Your task to perform on an android device: Do I have any events today? Image 0: 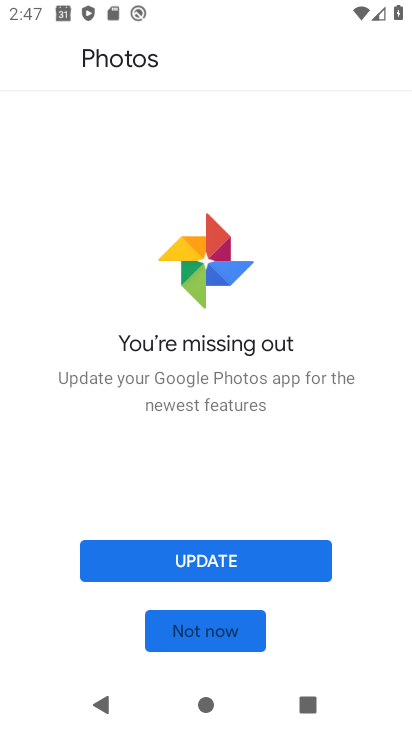
Step 0: press home button
Your task to perform on an android device: Do I have any events today? Image 1: 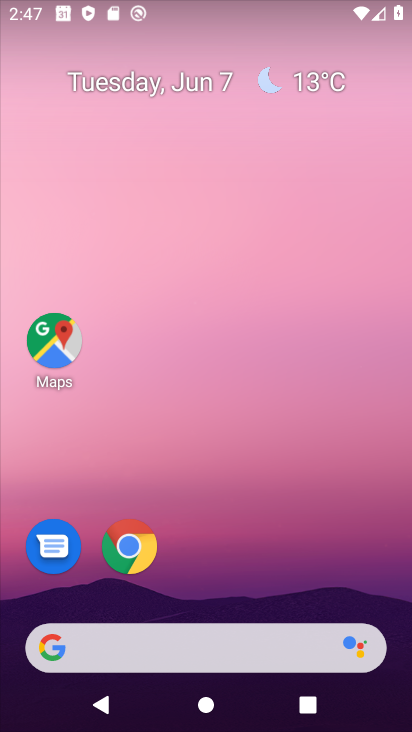
Step 1: click (206, 89)
Your task to perform on an android device: Do I have any events today? Image 2: 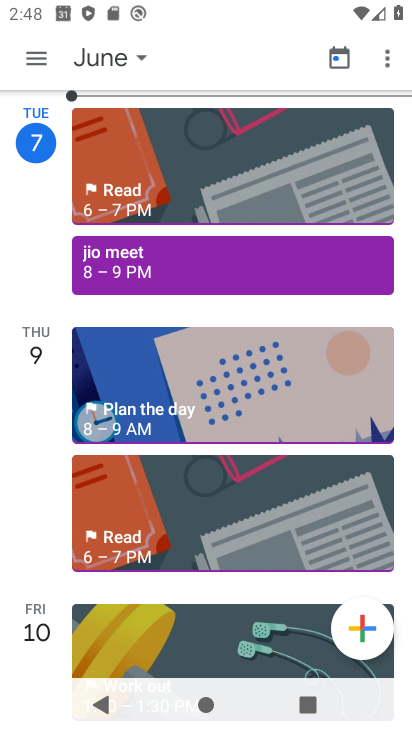
Step 2: click (122, 52)
Your task to perform on an android device: Do I have any events today? Image 3: 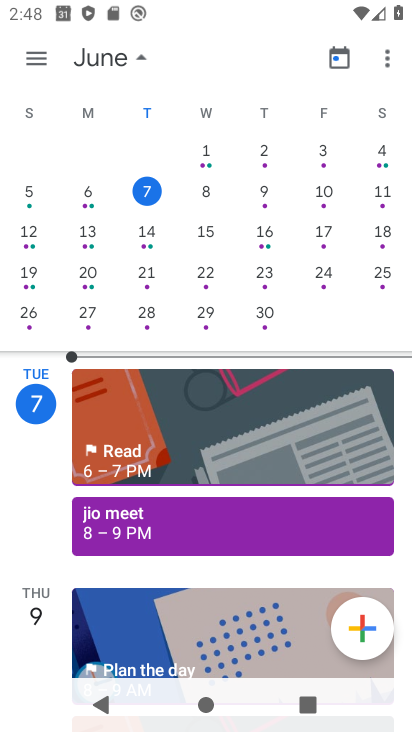
Step 3: task complete